Your task to perform on an android device: move a message to another label in the gmail app Image 0: 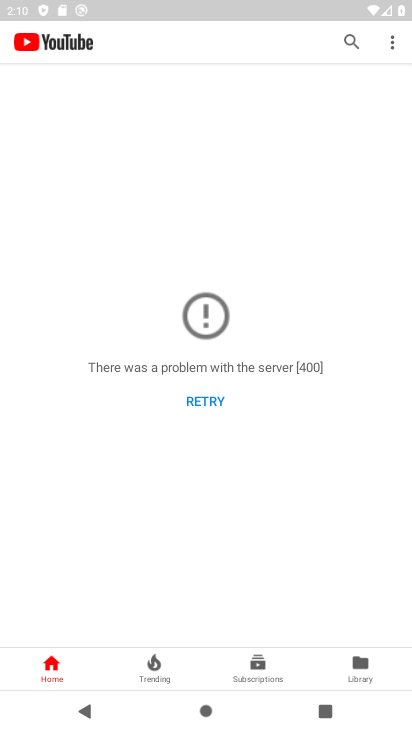
Step 0: press home button
Your task to perform on an android device: move a message to another label in the gmail app Image 1: 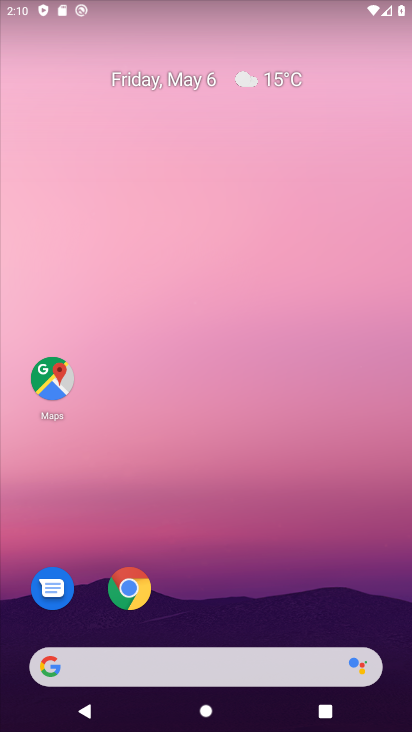
Step 1: drag from (208, 625) to (287, 0)
Your task to perform on an android device: move a message to another label in the gmail app Image 2: 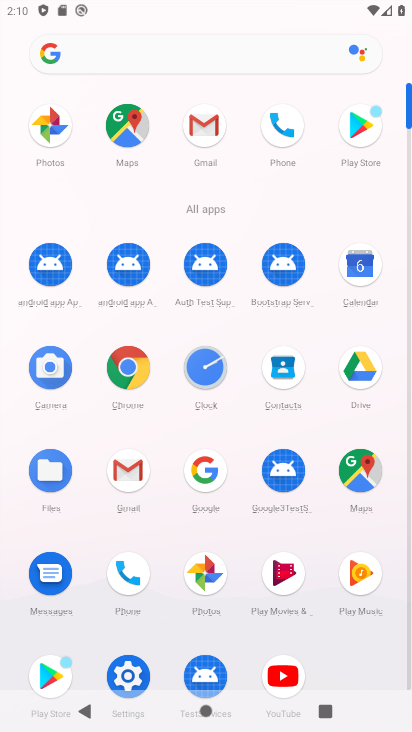
Step 2: click (126, 475)
Your task to perform on an android device: move a message to another label in the gmail app Image 3: 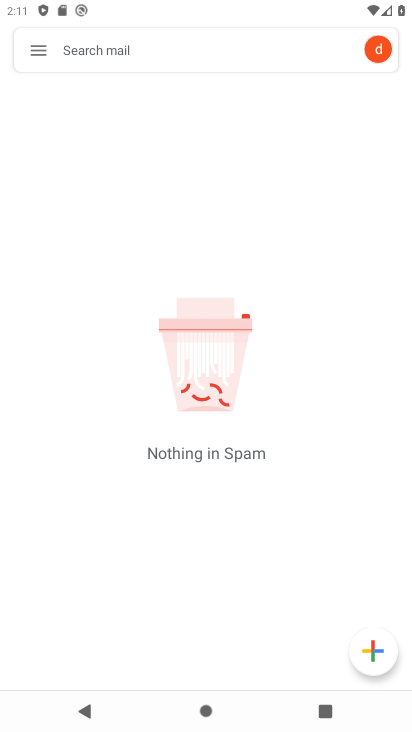
Step 3: click (39, 39)
Your task to perform on an android device: move a message to another label in the gmail app Image 4: 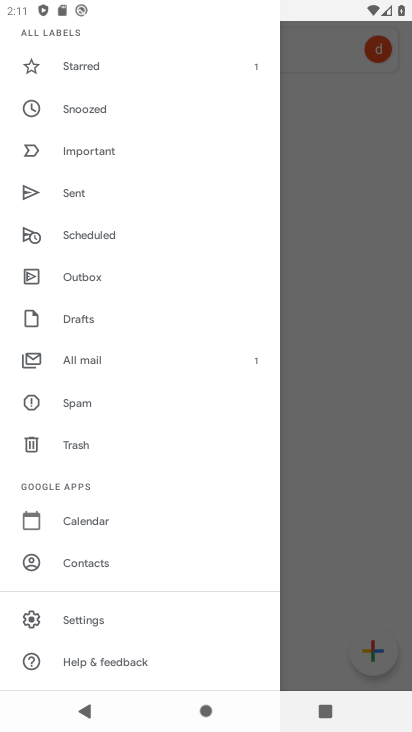
Step 4: drag from (86, 105) to (75, 468)
Your task to perform on an android device: move a message to another label in the gmail app Image 5: 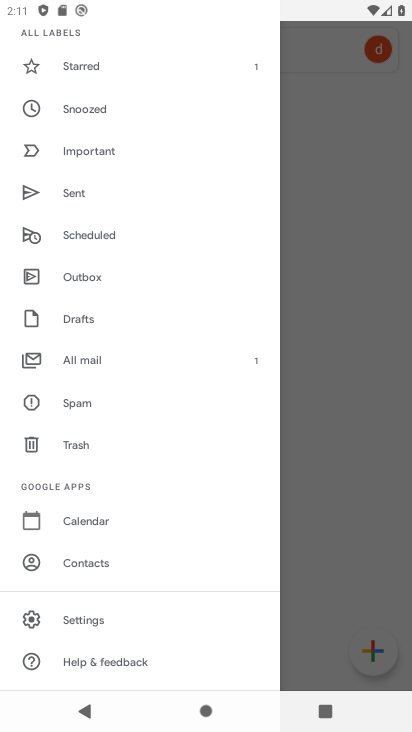
Step 5: drag from (94, 64) to (86, 494)
Your task to perform on an android device: move a message to another label in the gmail app Image 6: 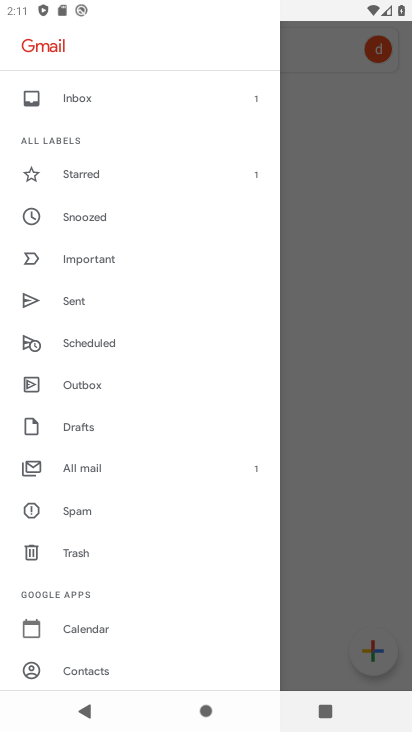
Step 6: click (106, 89)
Your task to perform on an android device: move a message to another label in the gmail app Image 7: 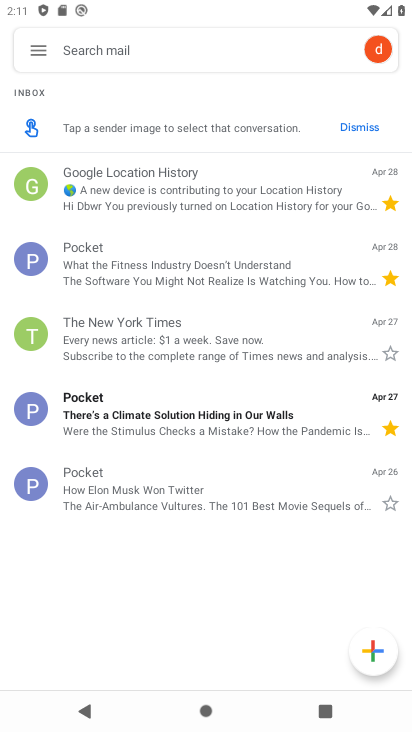
Step 7: click (112, 198)
Your task to perform on an android device: move a message to another label in the gmail app Image 8: 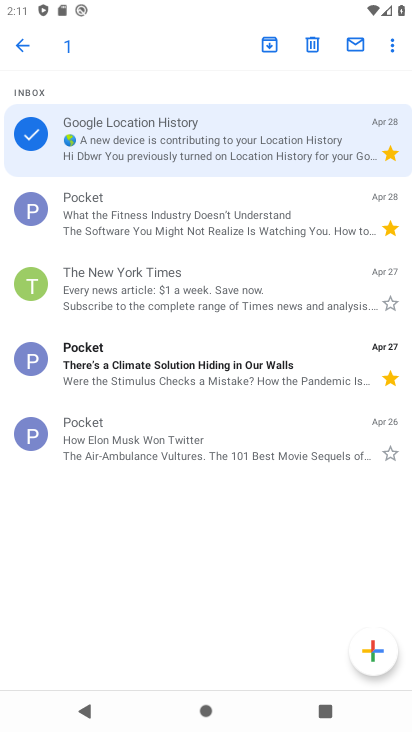
Step 8: click (395, 35)
Your task to perform on an android device: move a message to another label in the gmail app Image 9: 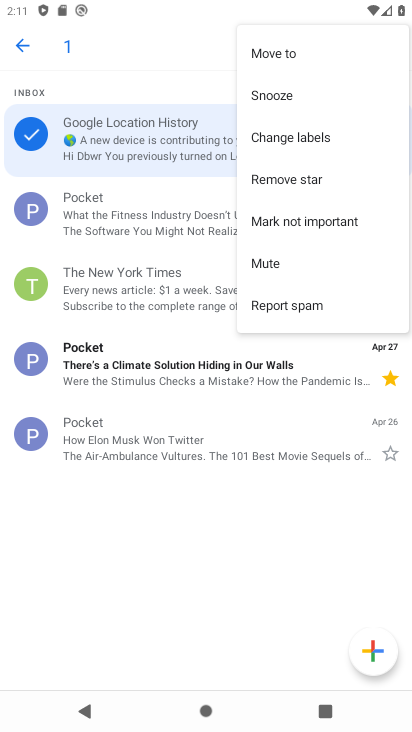
Step 9: click (309, 57)
Your task to perform on an android device: move a message to another label in the gmail app Image 10: 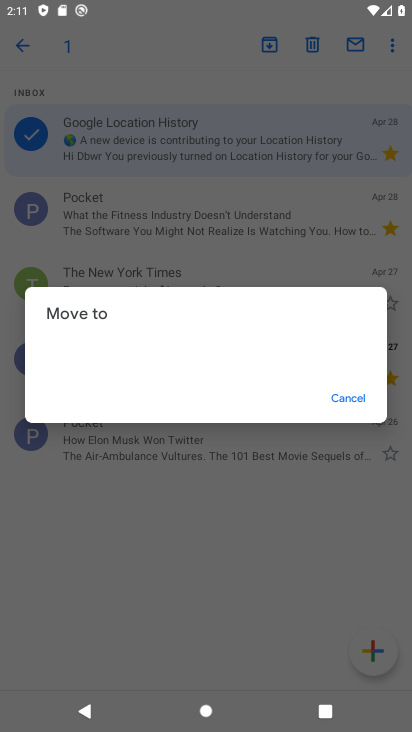
Step 10: task complete